Your task to perform on an android device: set default search engine in the chrome app Image 0: 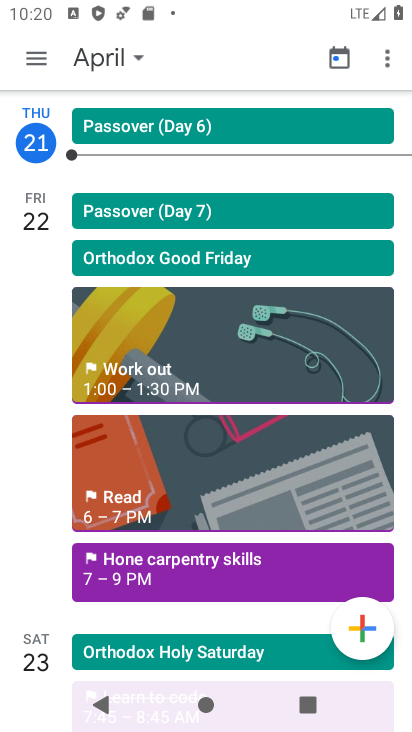
Step 0: press home button
Your task to perform on an android device: set default search engine in the chrome app Image 1: 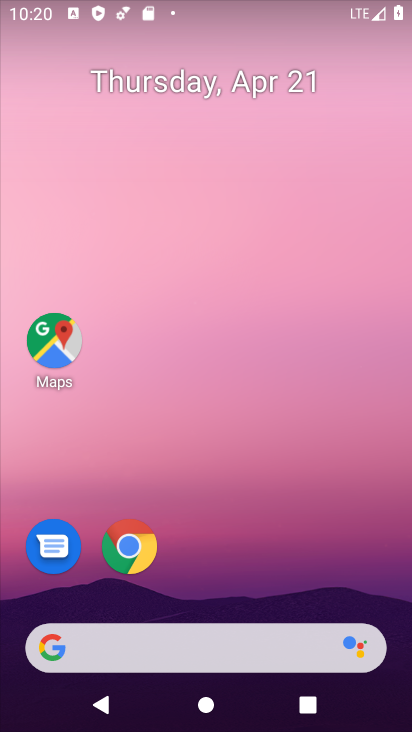
Step 1: click (126, 546)
Your task to perform on an android device: set default search engine in the chrome app Image 2: 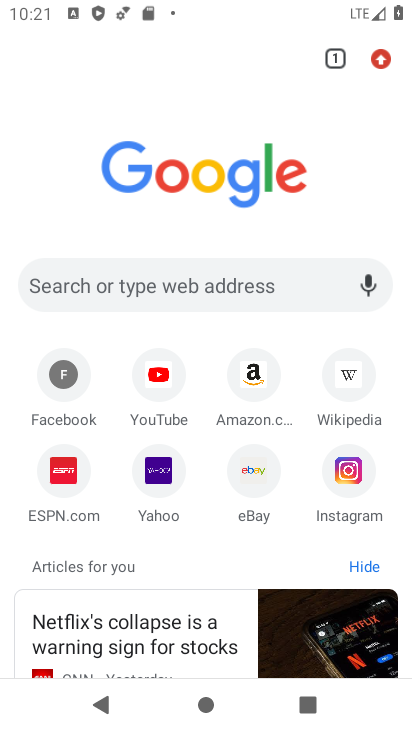
Step 2: click (379, 59)
Your task to perform on an android device: set default search engine in the chrome app Image 3: 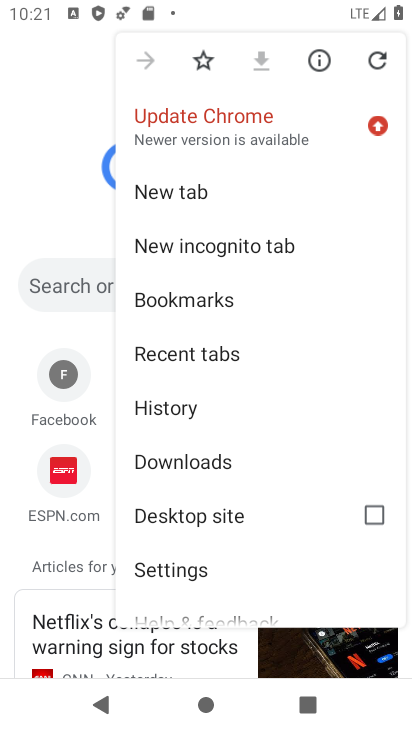
Step 3: click (172, 562)
Your task to perform on an android device: set default search engine in the chrome app Image 4: 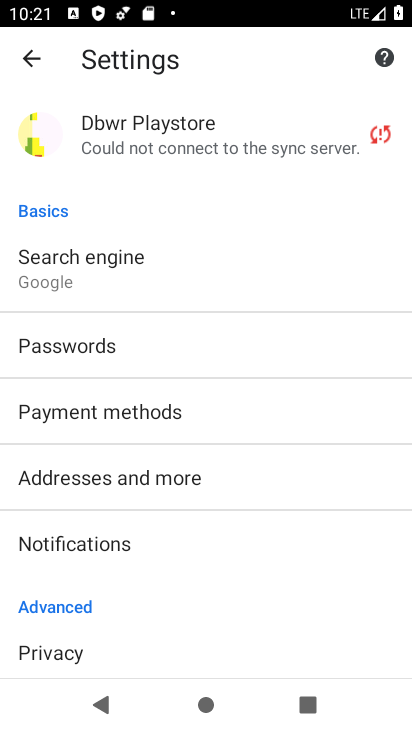
Step 4: click (52, 258)
Your task to perform on an android device: set default search engine in the chrome app Image 5: 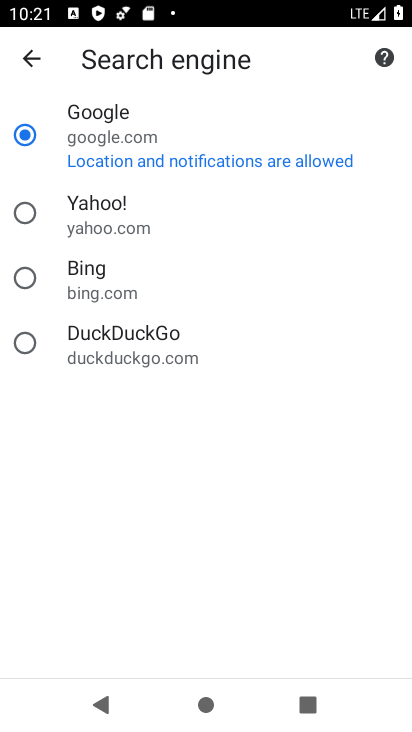
Step 5: click (67, 211)
Your task to perform on an android device: set default search engine in the chrome app Image 6: 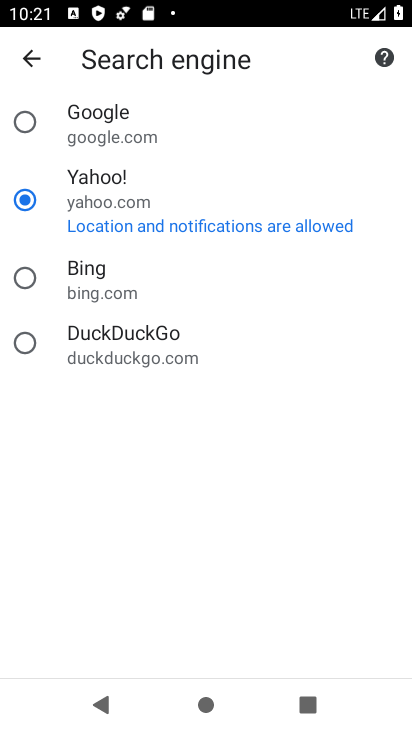
Step 6: task complete